Your task to perform on an android device: Go to location settings Image 0: 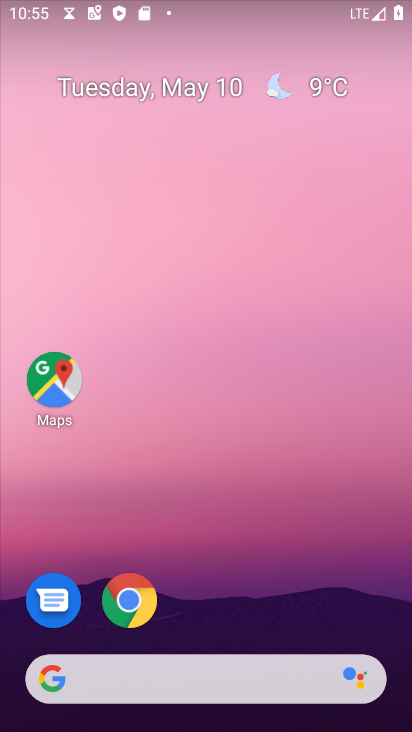
Step 0: drag from (251, 614) to (245, 93)
Your task to perform on an android device: Go to location settings Image 1: 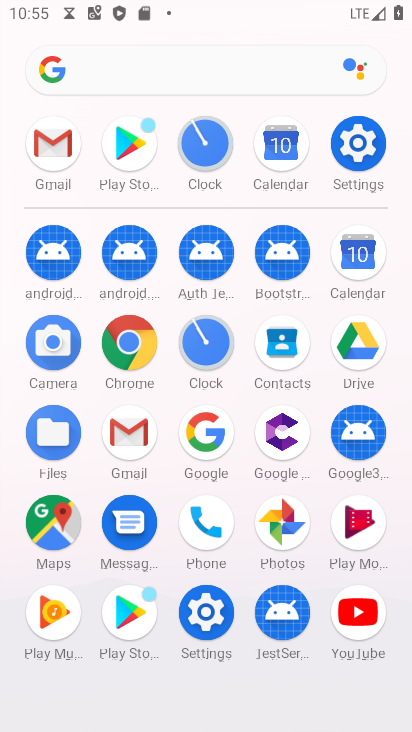
Step 1: click (357, 135)
Your task to perform on an android device: Go to location settings Image 2: 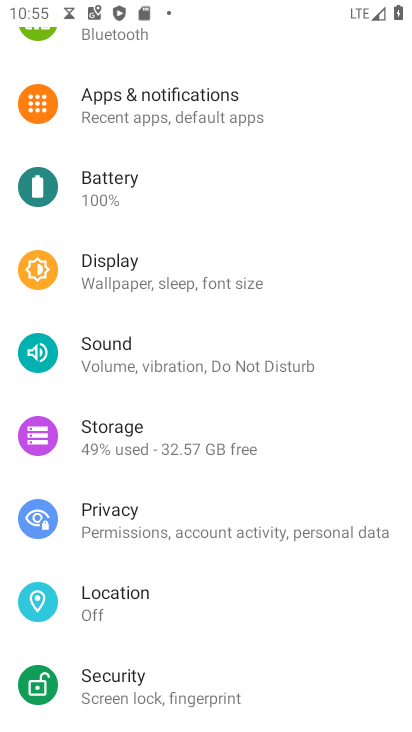
Step 2: drag from (219, 577) to (229, 77)
Your task to perform on an android device: Go to location settings Image 3: 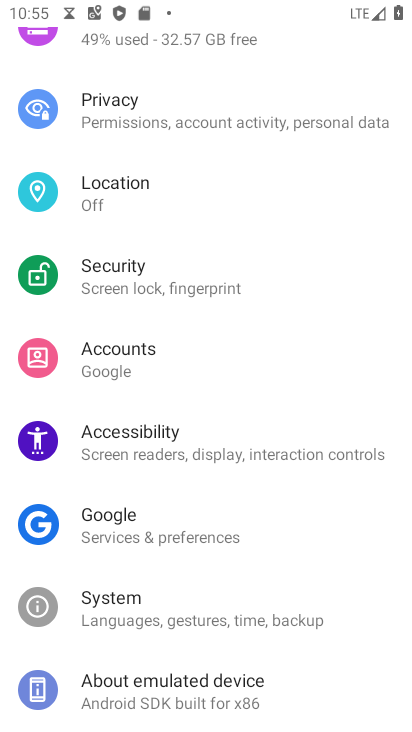
Step 3: click (187, 424)
Your task to perform on an android device: Go to location settings Image 4: 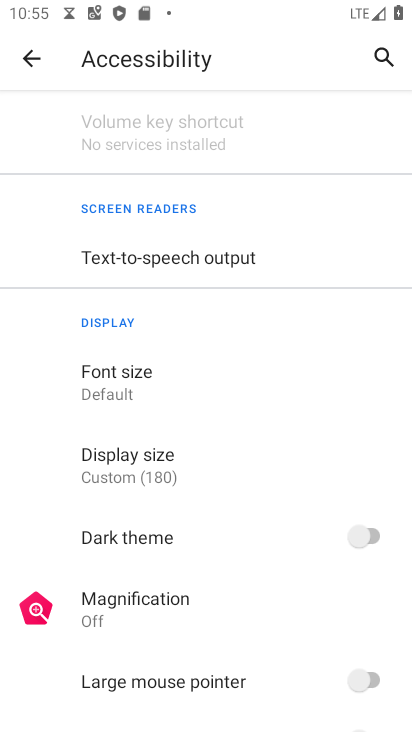
Step 4: press home button
Your task to perform on an android device: Go to location settings Image 5: 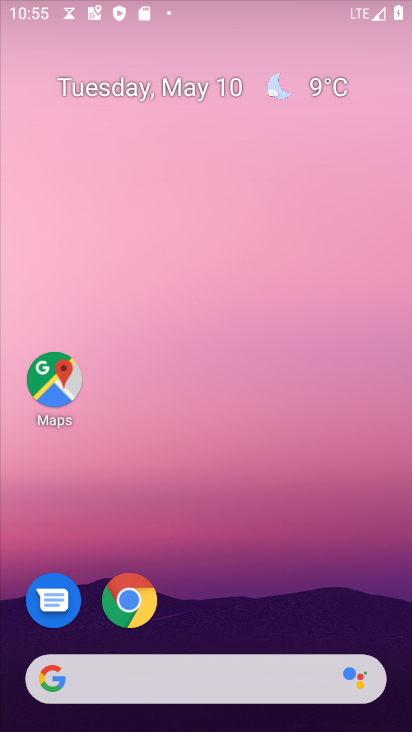
Step 5: drag from (243, 515) to (211, 13)
Your task to perform on an android device: Go to location settings Image 6: 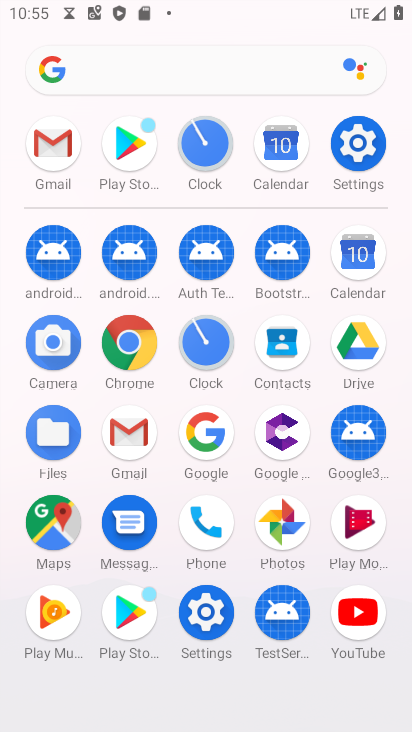
Step 6: click (353, 156)
Your task to perform on an android device: Go to location settings Image 7: 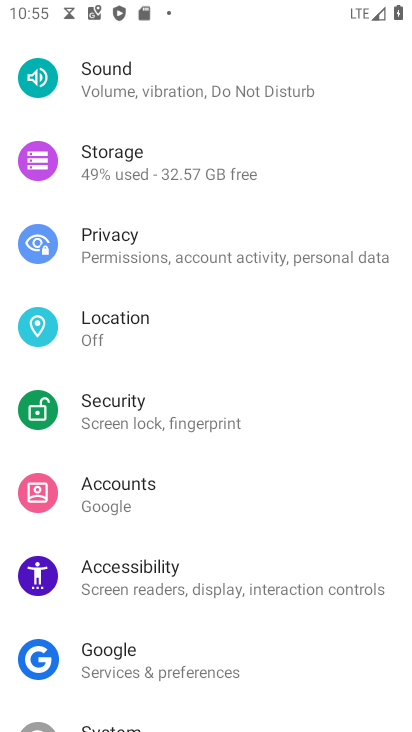
Step 7: click (174, 339)
Your task to perform on an android device: Go to location settings Image 8: 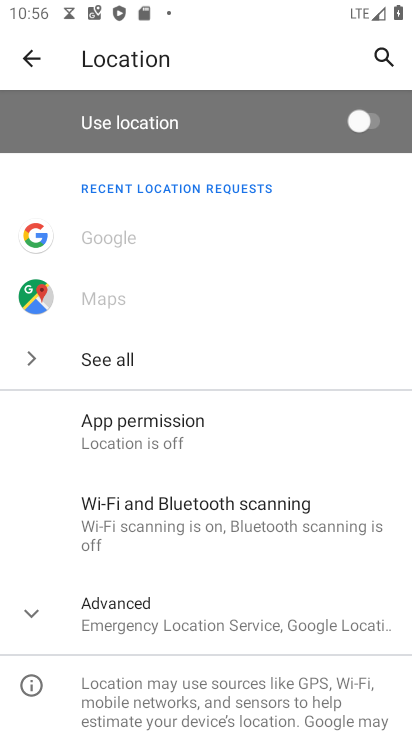
Step 8: task complete